Your task to perform on an android device: stop showing notifications on the lock screen Image 0: 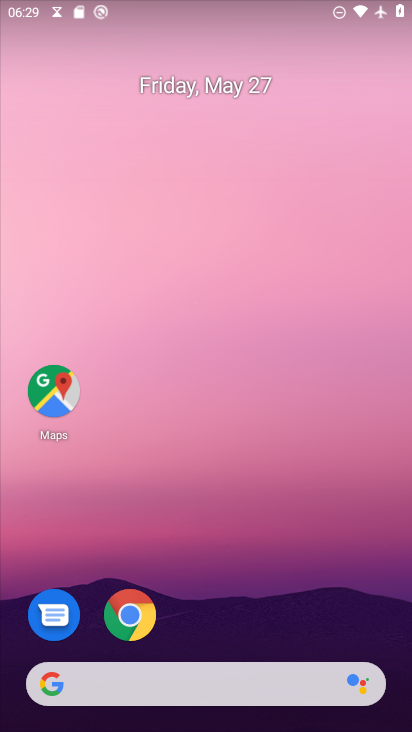
Step 0: drag from (289, 494) to (222, 49)
Your task to perform on an android device: stop showing notifications on the lock screen Image 1: 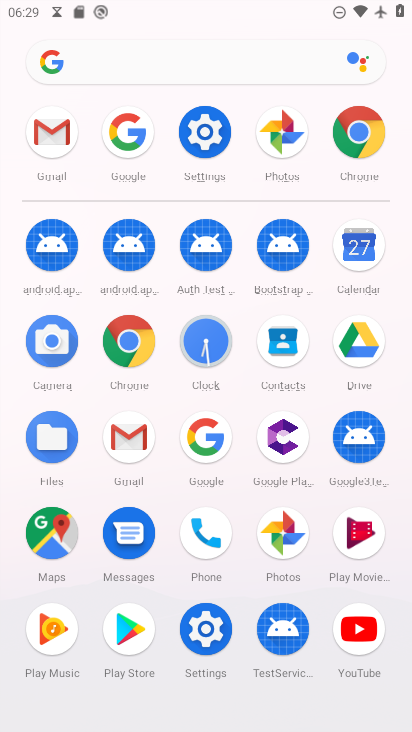
Step 1: click (210, 643)
Your task to perform on an android device: stop showing notifications on the lock screen Image 2: 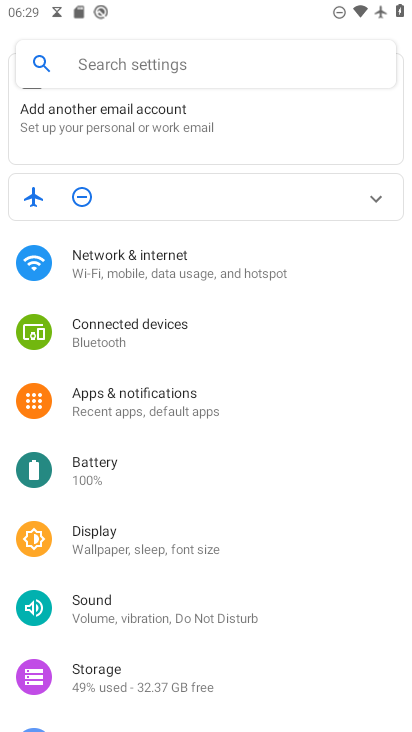
Step 2: click (191, 411)
Your task to perform on an android device: stop showing notifications on the lock screen Image 3: 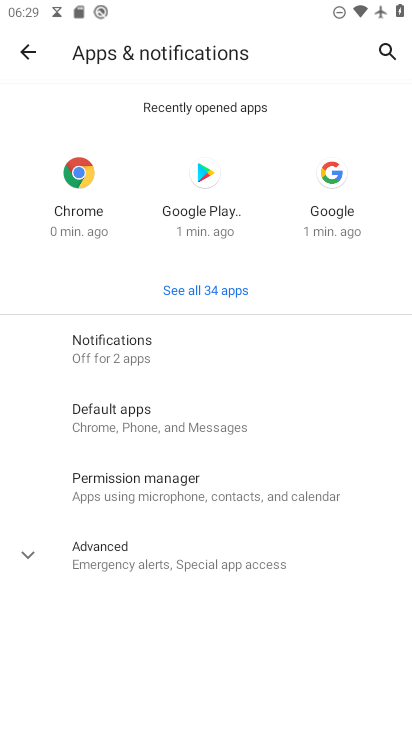
Step 3: click (197, 348)
Your task to perform on an android device: stop showing notifications on the lock screen Image 4: 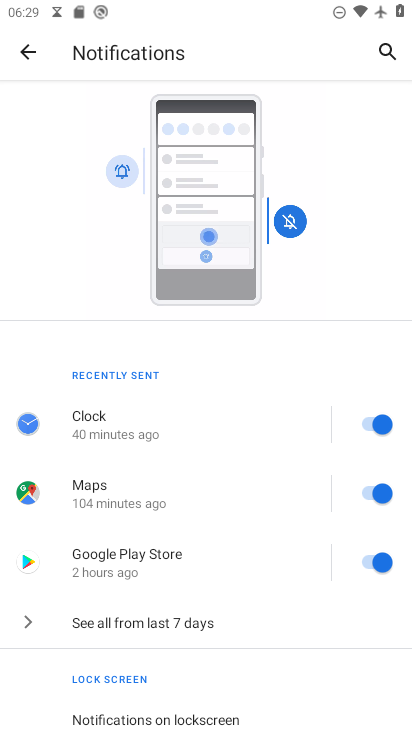
Step 4: click (210, 721)
Your task to perform on an android device: stop showing notifications on the lock screen Image 5: 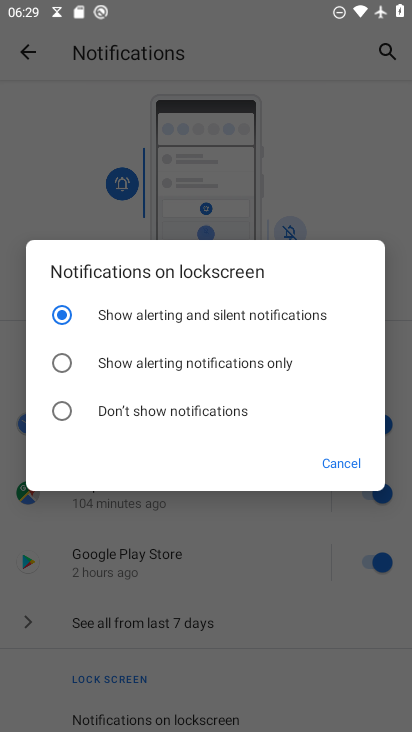
Step 5: click (193, 403)
Your task to perform on an android device: stop showing notifications on the lock screen Image 6: 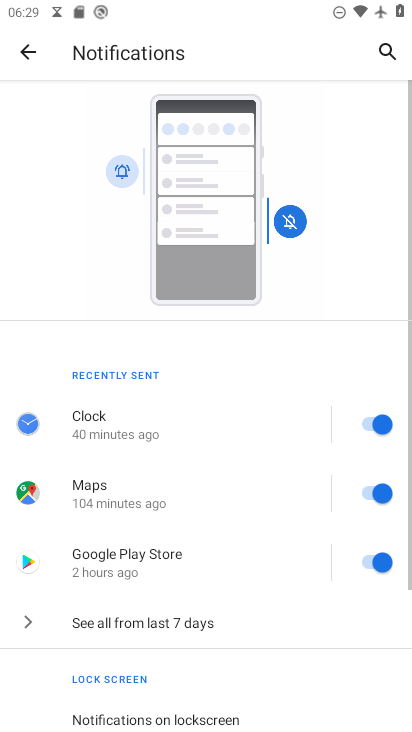
Step 6: task complete